Your task to perform on an android device: See recent photos Image 0: 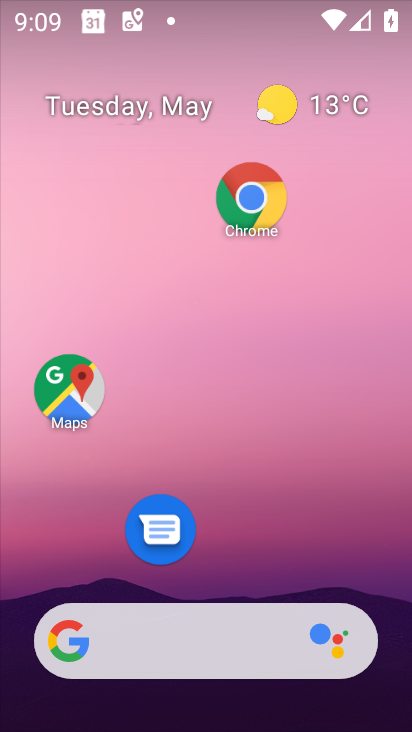
Step 0: drag from (265, 566) to (368, 110)
Your task to perform on an android device: See recent photos Image 1: 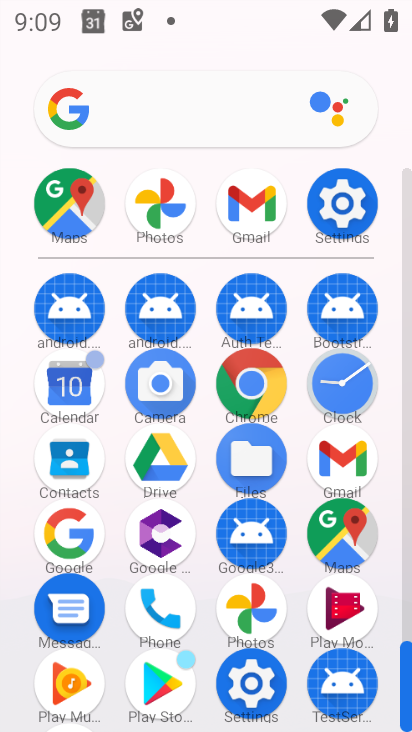
Step 1: click (154, 254)
Your task to perform on an android device: See recent photos Image 2: 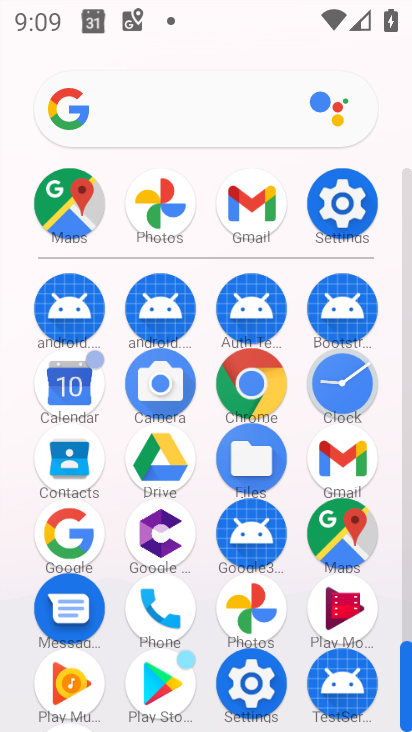
Step 2: click (156, 232)
Your task to perform on an android device: See recent photos Image 3: 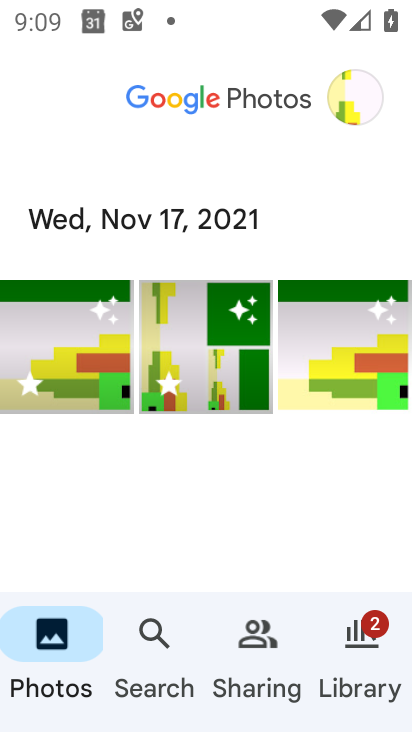
Step 3: task complete